Your task to perform on an android device: turn on javascript in the chrome app Image 0: 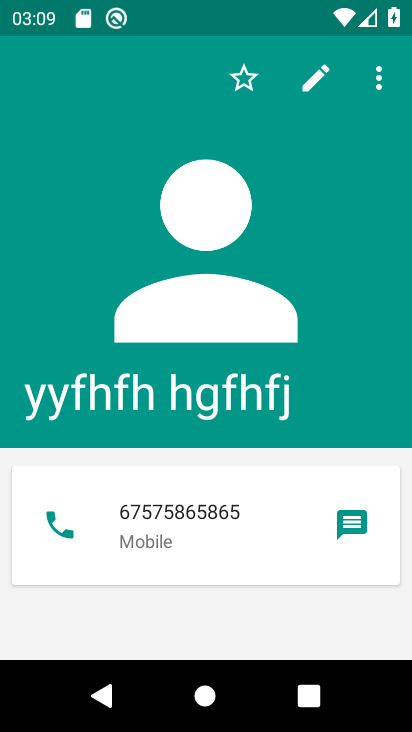
Step 0: press home button
Your task to perform on an android device: turn on javascript in the chrome app Image 1: 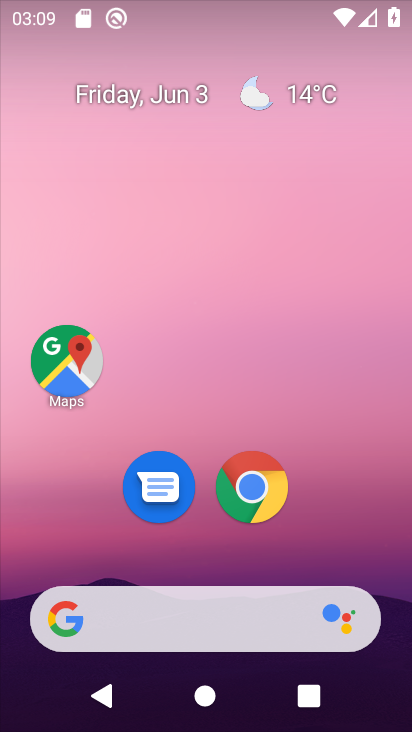
Step 1: click (246, 511)
Your task to perform on an android device: turn on javascript in the chrome app Image 2: 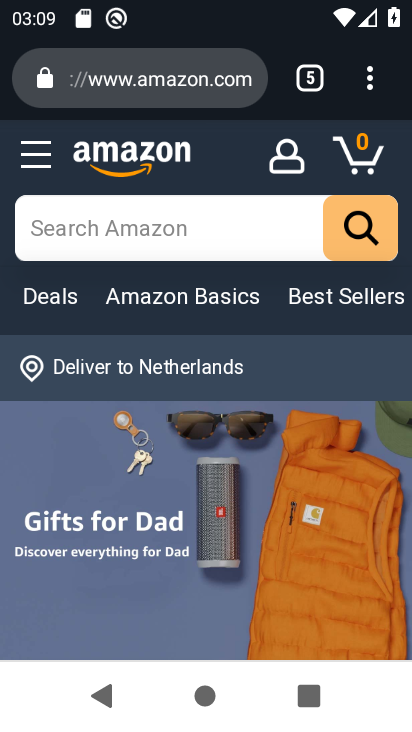
Step 2: click (380, 80)
Your task to perform on an android device: turn on javascript in the chrome app Image 3: 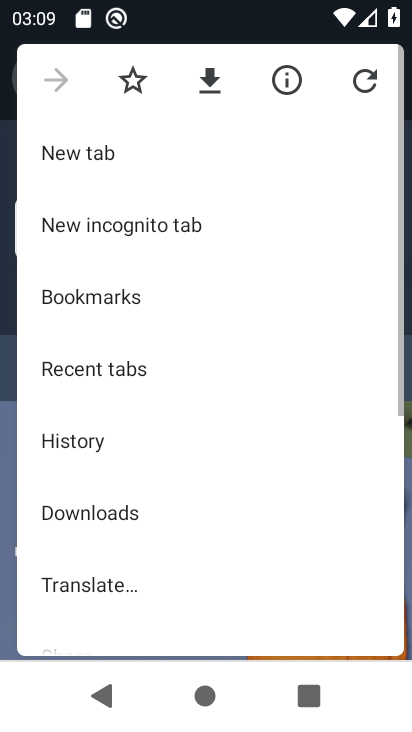
Step 3: drag from (262, 591) to (168, 111)
Your task to perform on an android device: turn on javascript in the chrome app Image 4: 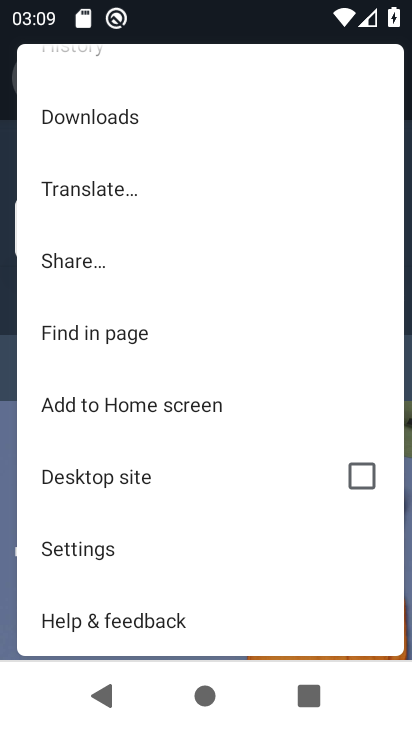
Step 4: click (178, 546)
Your task to perform on an android device: turn on javascript in the chrome app Image 5: 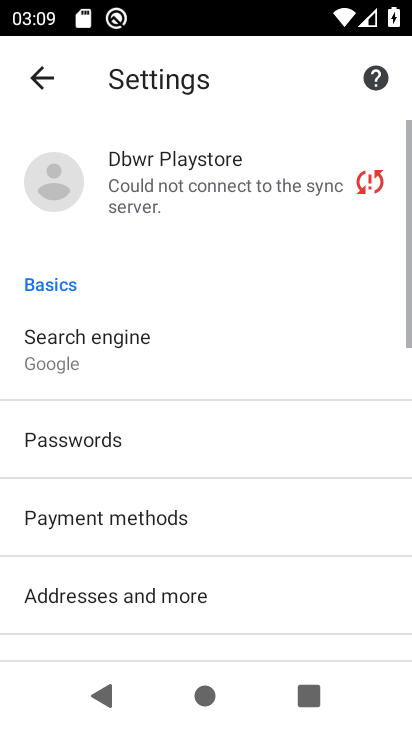
Step 5: drag from (218, 418) to (198, 12)
Your task to perform on an android device: turn on javascript in the chrome app Image 6: 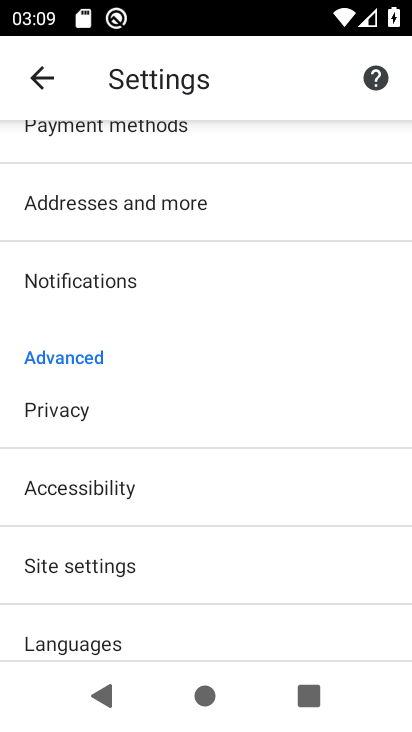
Step 6: click (175, 555)
Your task to perform on an android device: turn on javascript in the chrome app Image 7: 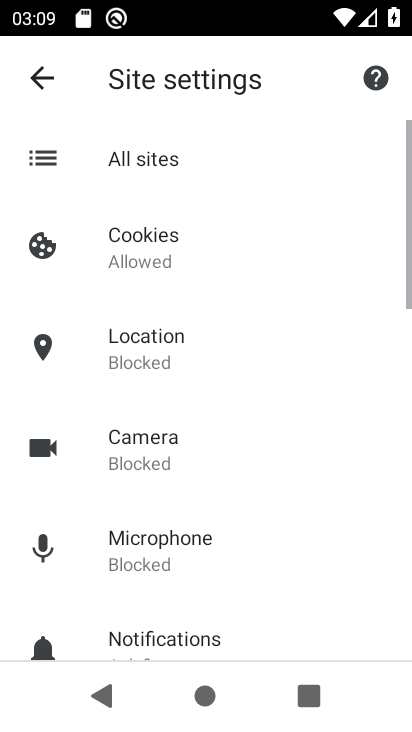
Step 7: drag from (241, 574) to (207, 9)
Your task to perform on an android device: turn on javascript in the chrome app Image 8: 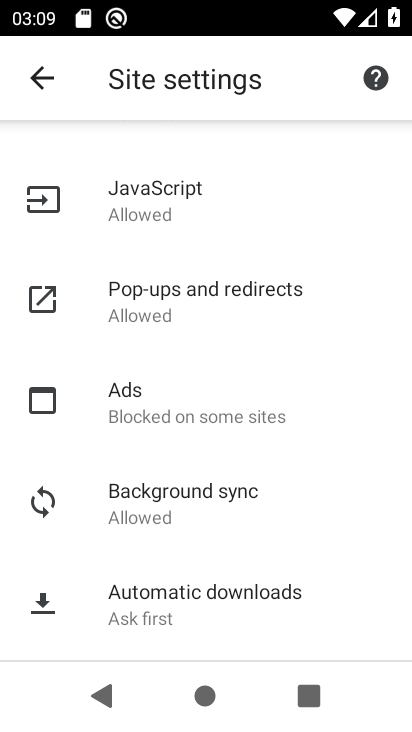
Step 8: click (171, 211)
Your task to perform on an android device: turn on javascript in the chrome app Image 9: 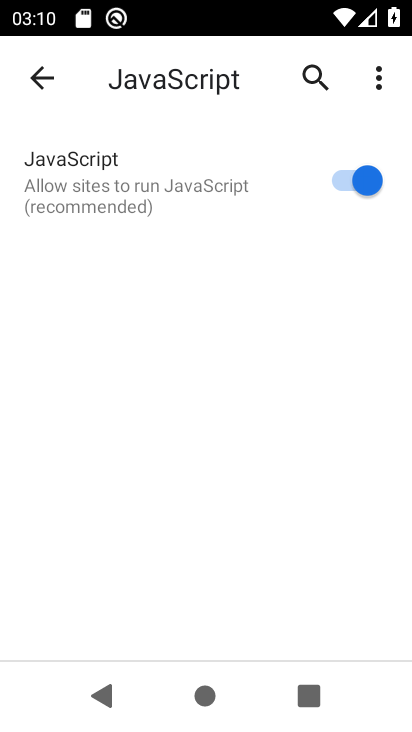
Step 9: task complete